Your task to perform on an android device: turn off wifi Image 0: 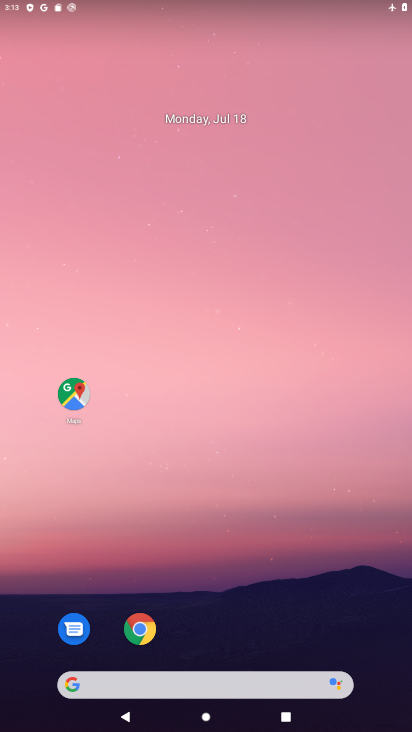
Step 0: drag from (209, 669) to (168, 104)
Your task to perform on an android device: turn off wifi Image 1: 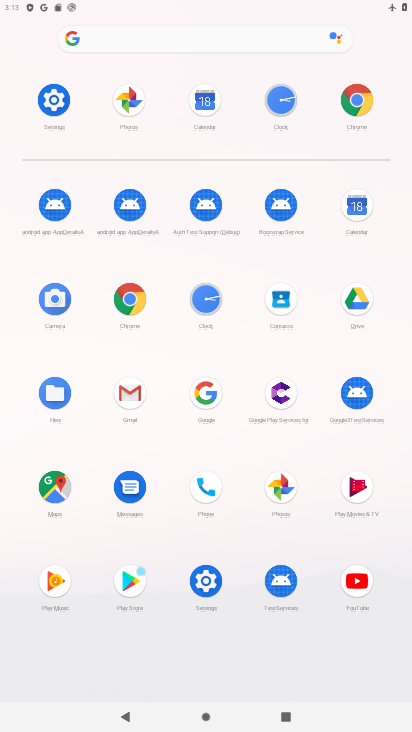
Step 1: click (216, 571)
Your task to perform on an android device: turn off wifi Image 2: 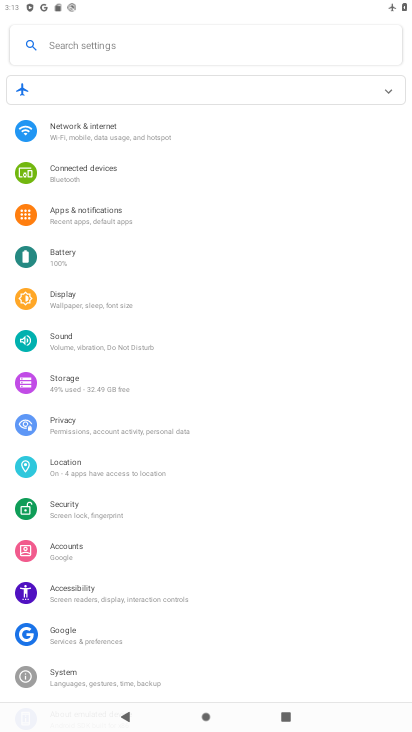
Step 2: click (104, 120)
Your task to perform on an android device: turn off wifi Image 3: 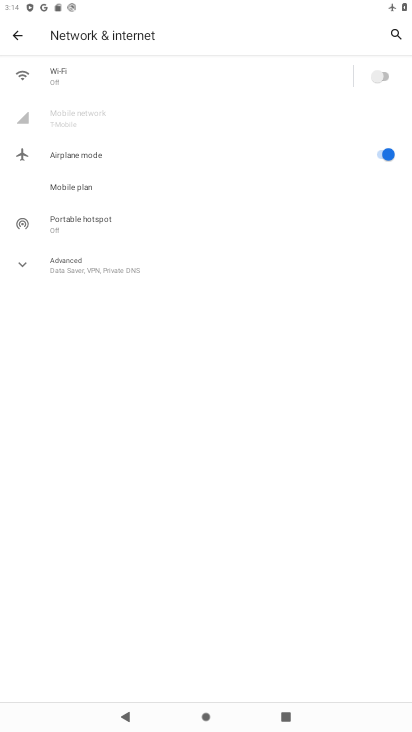
Step 3: click (234, 67)
Your task to perform on an android device: turn off wifi Image 4: 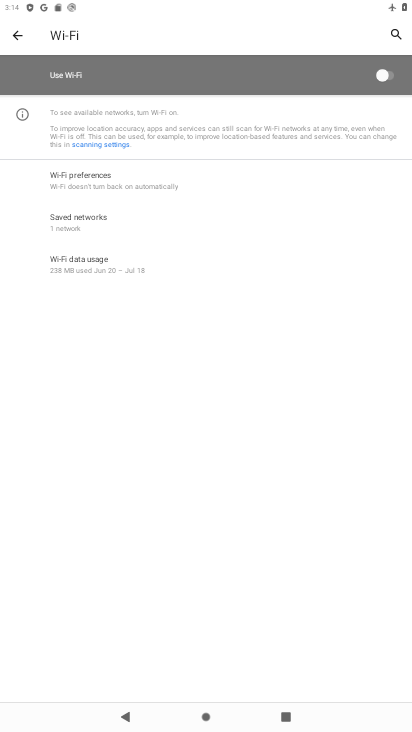
Step 4: task complete